Your task to perform on an android device: open app "Speedtest by Ookla" (install if not already installed), go to login, and select forgot password Image 0: 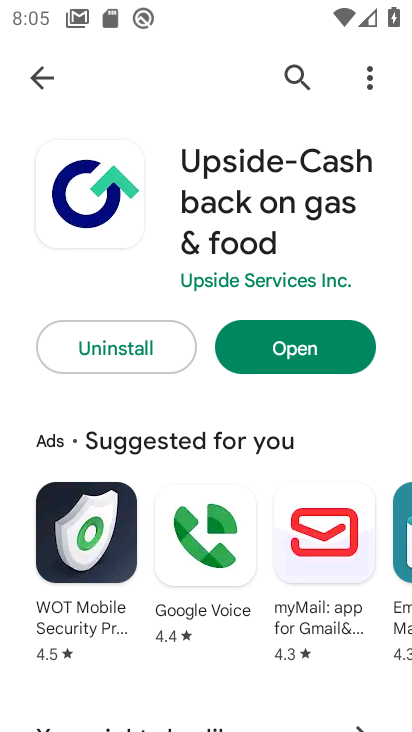
Step 0: click (282, 61)
Your task to perform on an android device: open app "Speedtest by Ookla" (install if not already installed), go to login, and select forgot password Image 1: 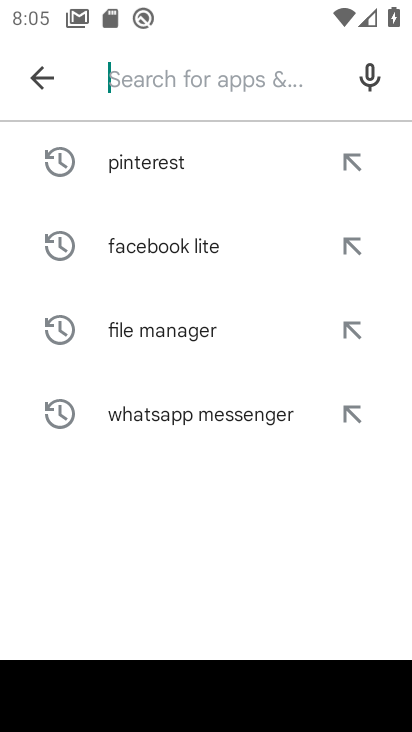
Step 1: type "Speedtest by Ookla"
Your task to perform on an android device: open app "Speedtest by Ookla" (install if not already installed), go to login, and select forgot password Image 2: 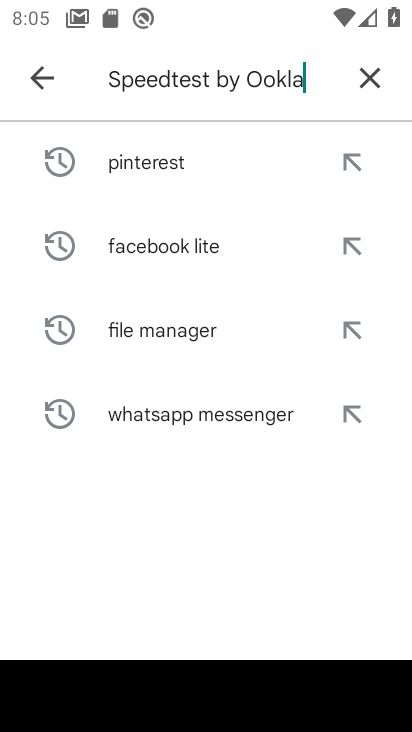
Step 2: type ""
Your task to perform on an android device: open app "Speedtest by Ookla" (install if not already installed), go to login, and select forgot password Image 3: 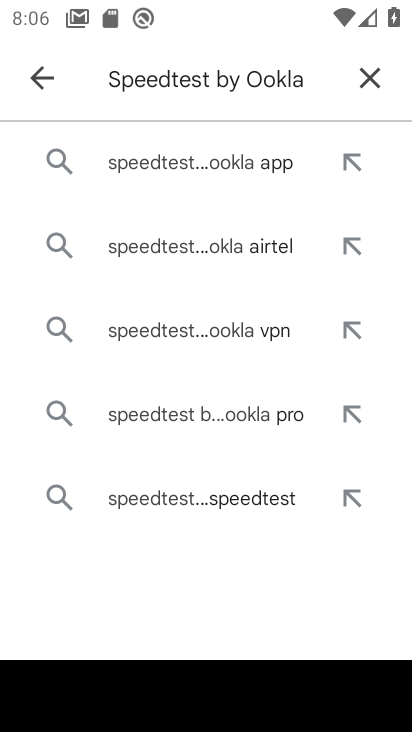
Step 3: click (197, 172)
Your task to perform on an android device: open app "Speedtest by Ookla" (install if not already installed), go to login, and select forgot password Image 4: 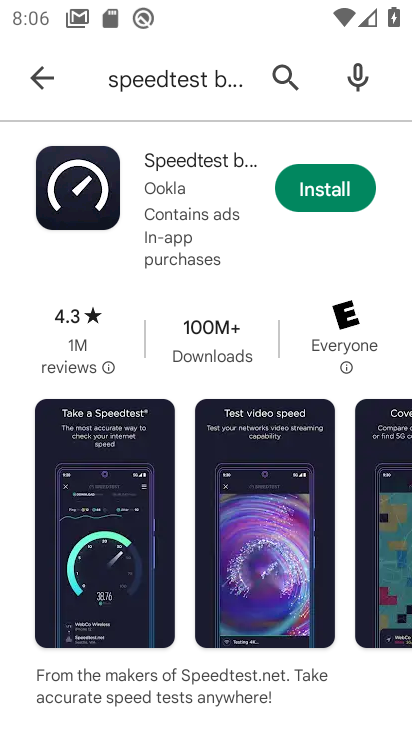
Step 4: click (327, 189)
Your task to perform on an android device: open app "Speedtest by Ookla" (install if not already installed), go to login, and select forgot password Image 5: 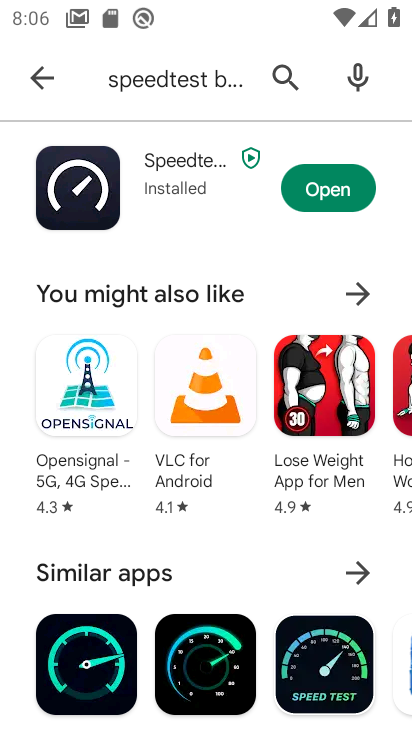
Step 5: click (309, 196)
Your task to perform on an android device: open app "Speedtest by Ookla" (install if not already installed), go to login, and select forgot password Image 6: 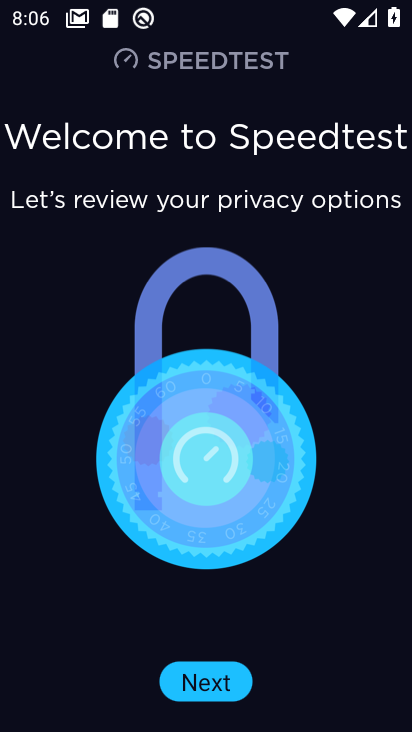
Step 6: task complete